Your task to perform on an android device: Go to internet settings Image 0: 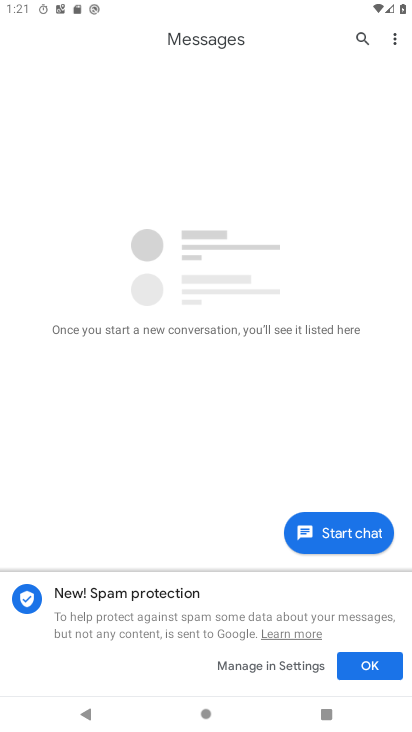
Step 0: press home button
Your task to perform on an android device: Go to internet settings Image 1: 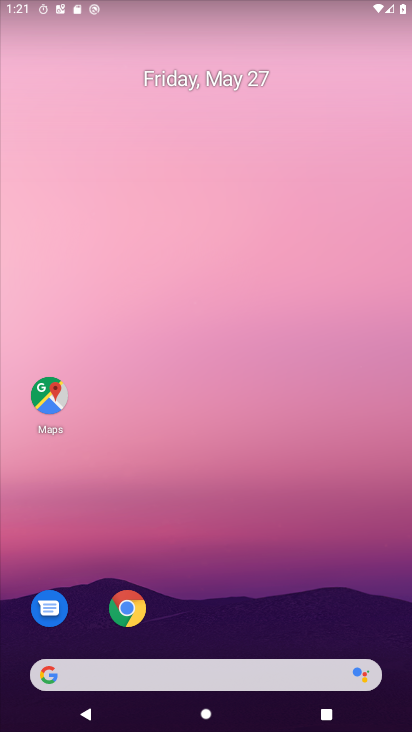
Step 1: drag from (6, 264) to (411, 255)
Your task to perform on an android device: Go to internet settings Image 2: 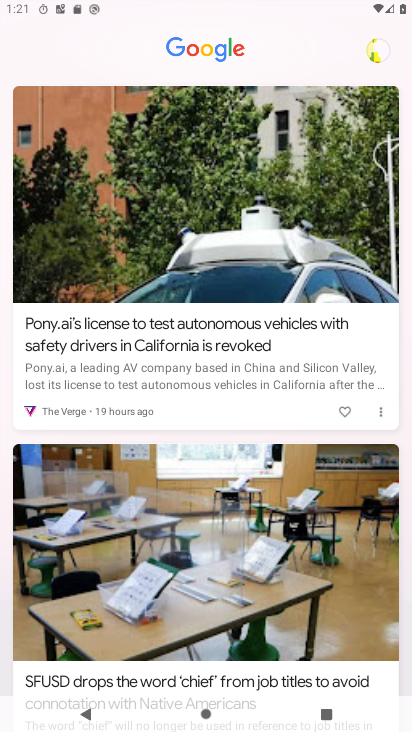
Step 2: press home button
Your task to perform on an android device: Go to internet settings Image 3: 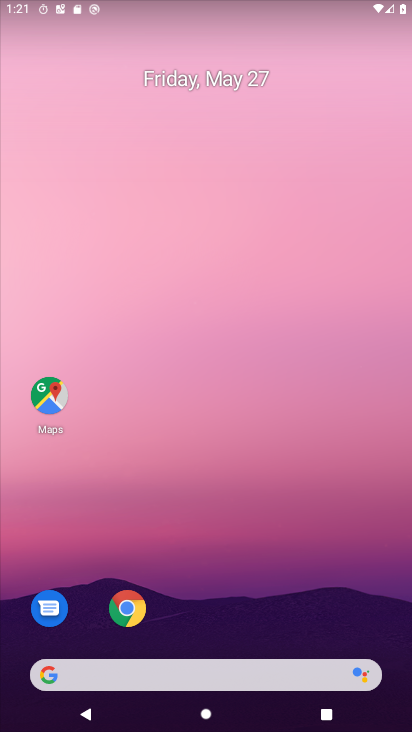
Step 3: drag from (403, 707) to (313, 310)
Your task to perform on an android device: Go to internet settings Image 4: 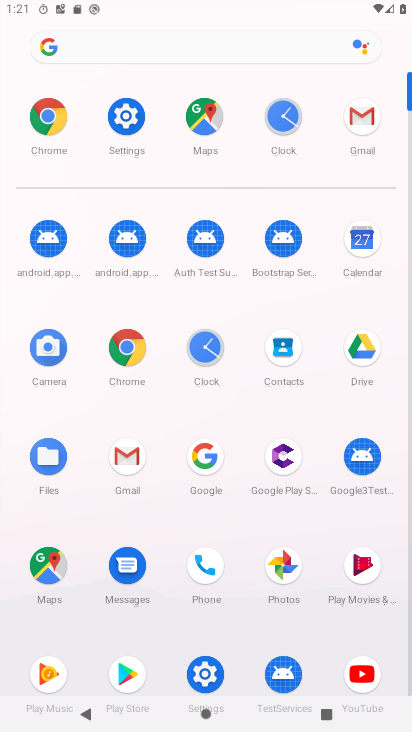
Step 4: click (139, 127)
Your task to perform on an android device: Go to internet settings Image 5: 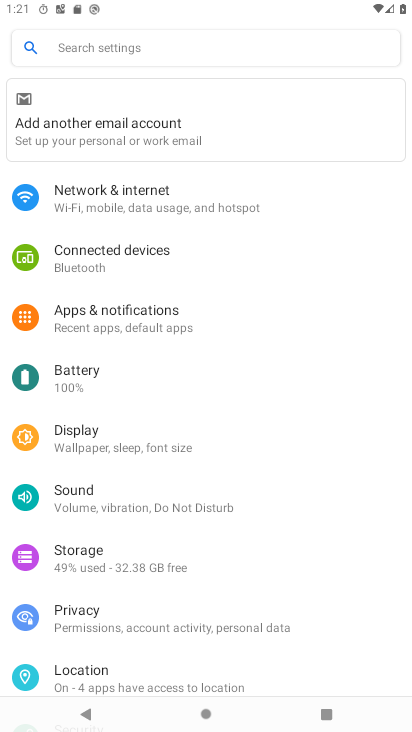
Step 5: click (115, 207)
Your task to perform on an android device: Go to internet settings Image 6: 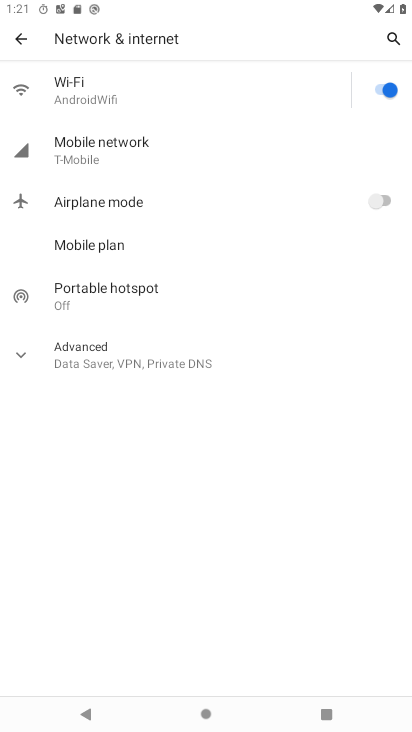
Step 6: click (75, 156)
Your task to perform on an android device: Go to internet settings Image 7: 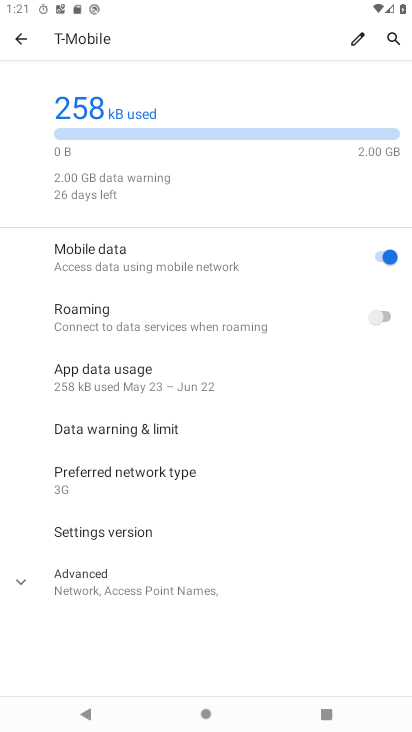
Step 7: drag from (228, 595) to (213, 235)
Your task to perform on an android device: Go to internet settings Image 8: 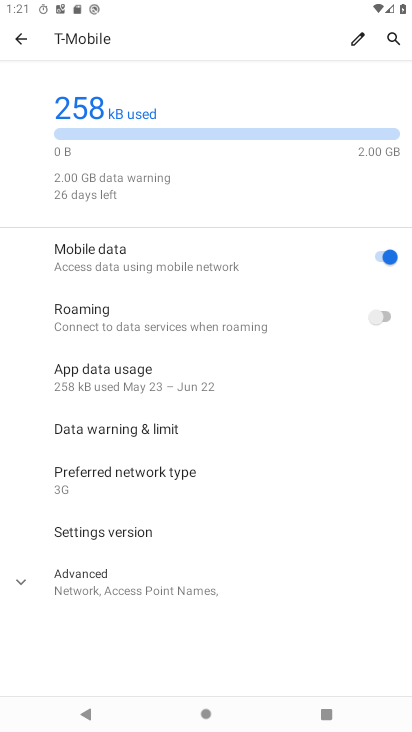
Step 8: click (16, 577)
Your task to perform on an android device: Go to internet settings Image 9: 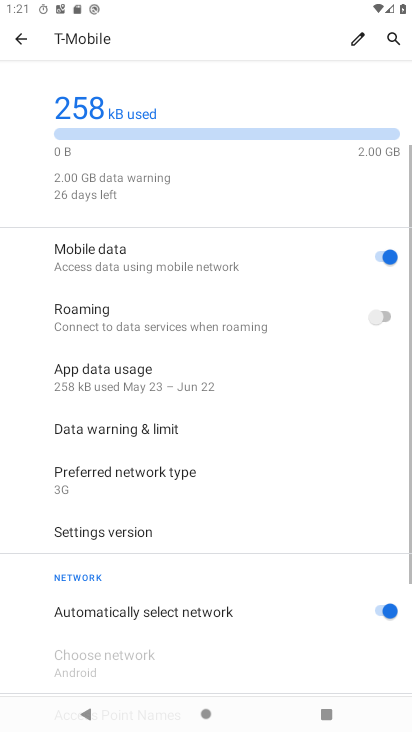
Step 9: task complete